Your task to perform on an android device: uninstall "Pinterest" Image 0: 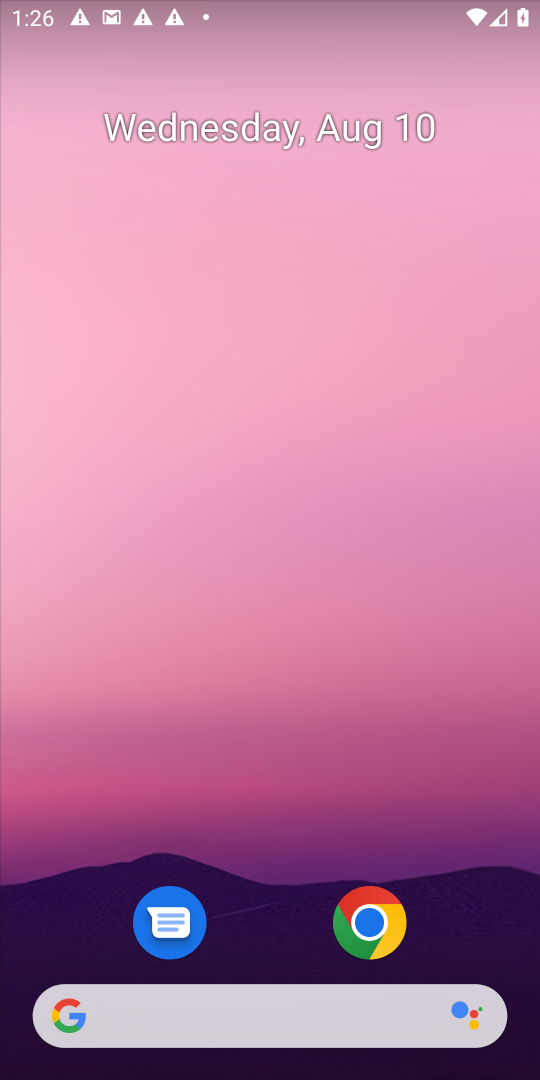
Step 0: drag from (275, 726) to (287, 145)
Your task to perform on an android device: uninstall "Pinterest" Image 1: 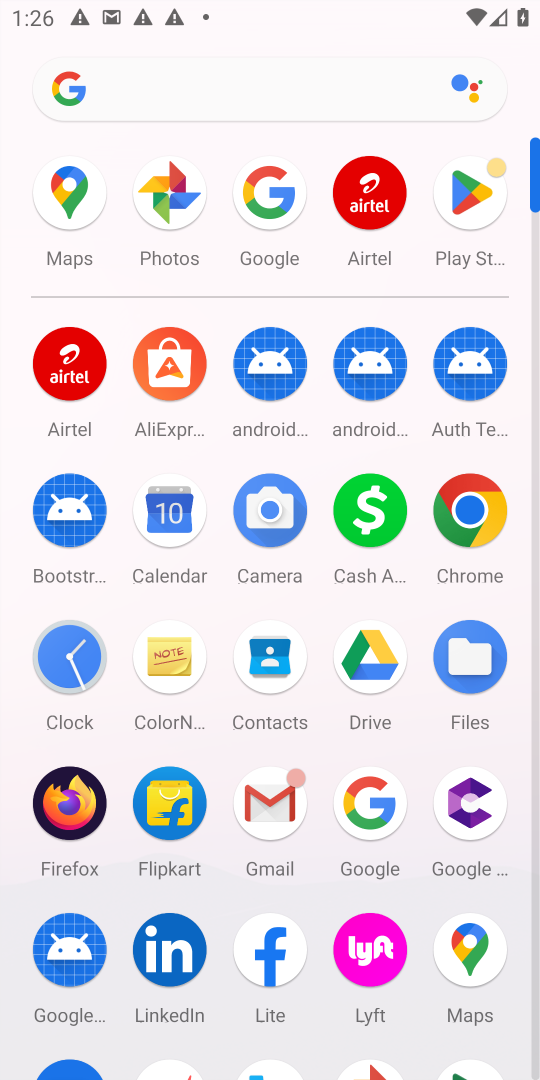
Step 1: click (486, 197)
Your task to perform on an android device: uninstall "Pinterest" Image 2: 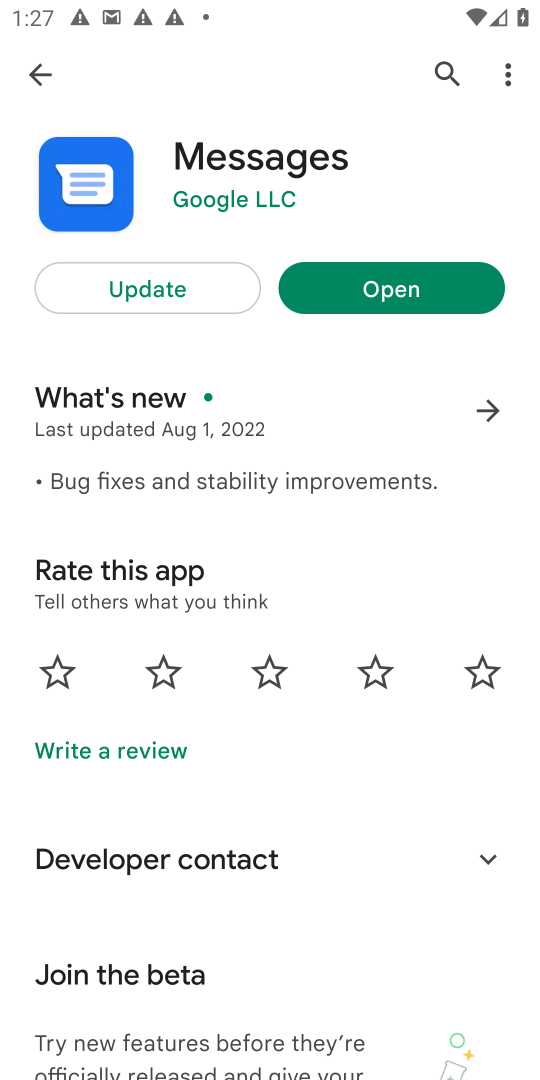
Step 2: click (38, 70)
Your task to perform on an android device: uninstall "Pinterest" Image 3: 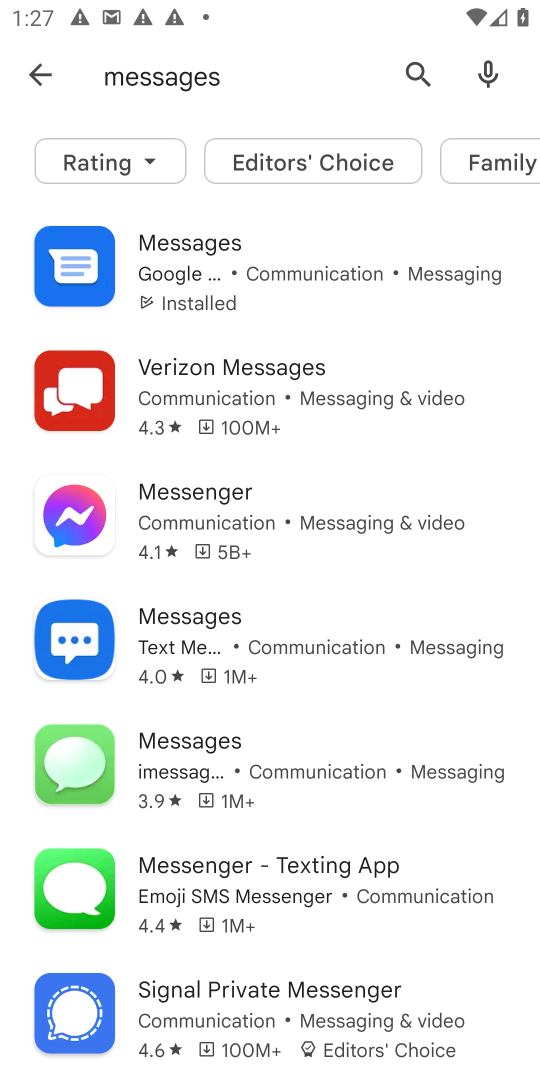
Step 3: click (204, 86)
Your task to perform on an android device: uninstall "Pinterest" Image 4: 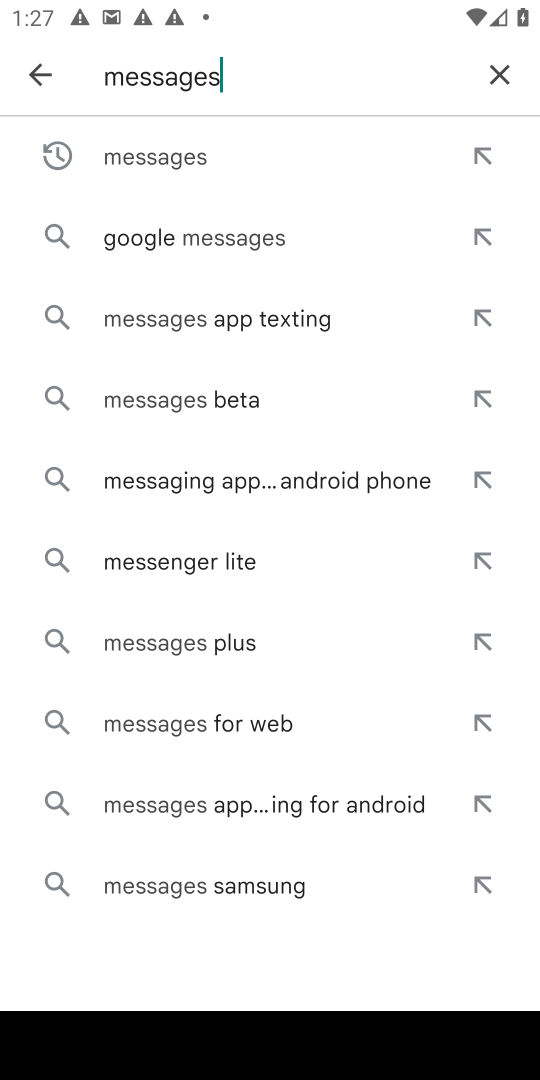
Step 4: click (502, 79)
Your task to perform on an android device: uninstall "Pinterest" Image 5: 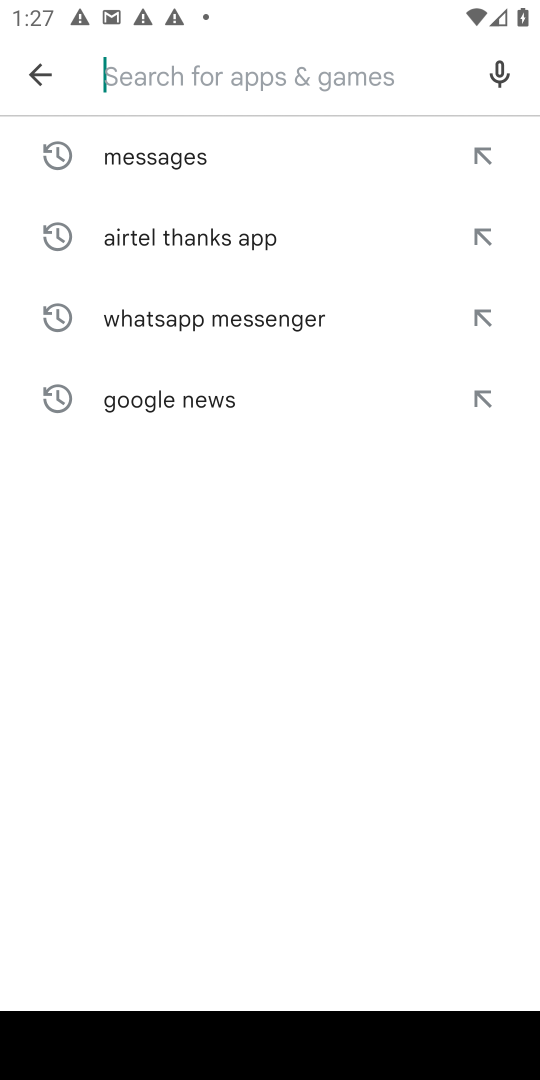
Step 5: type "Pinterest"
Your task to perform on an android device: uninstall "Pinterest" Image 6: 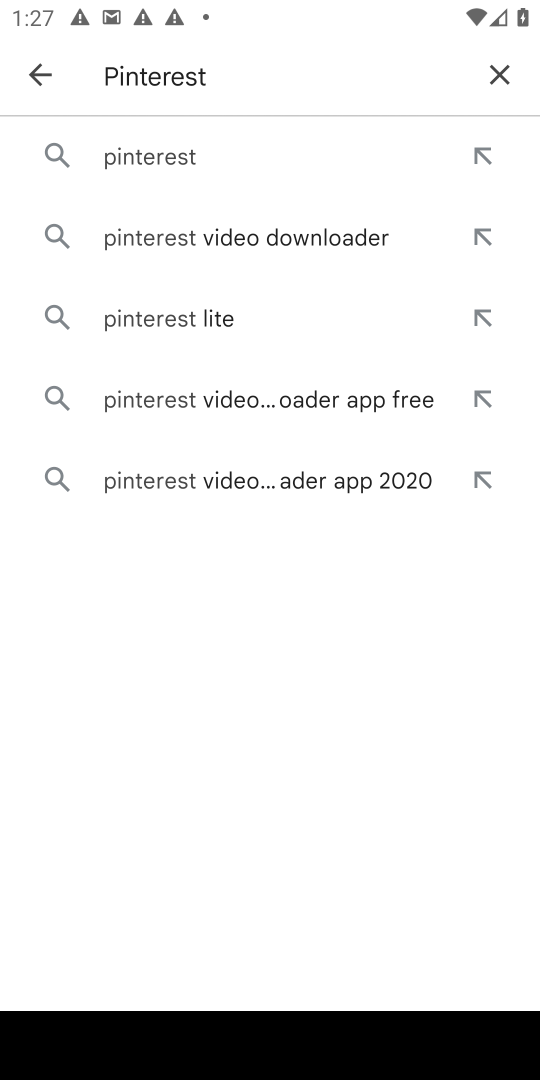
Step 6: click (171, 158)
Your task to perform on an android device: uninstall "Pinterest" Image 7: 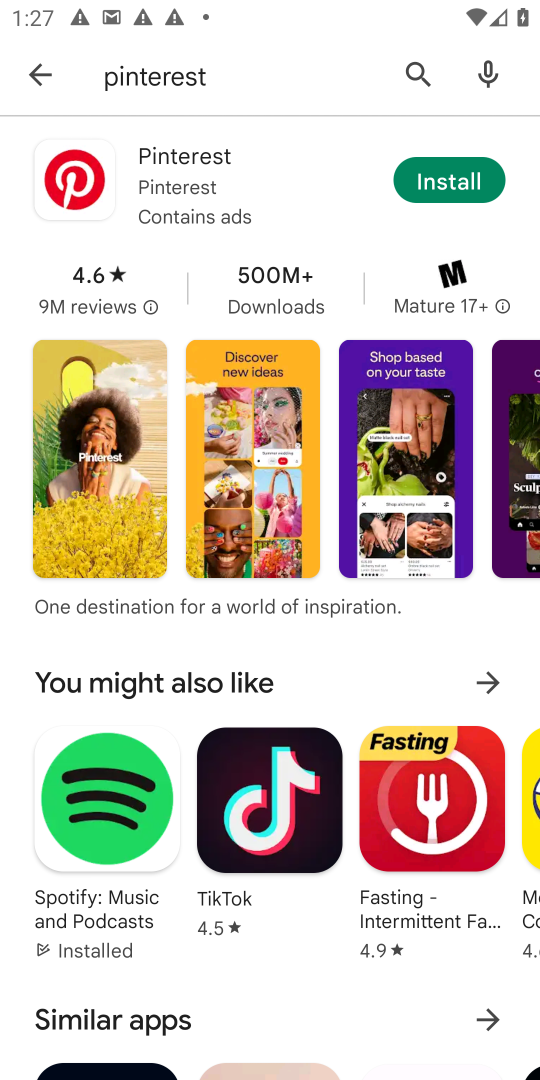
Step 7: task complete